Your task to perform on an android device: toggle location history Image 0: 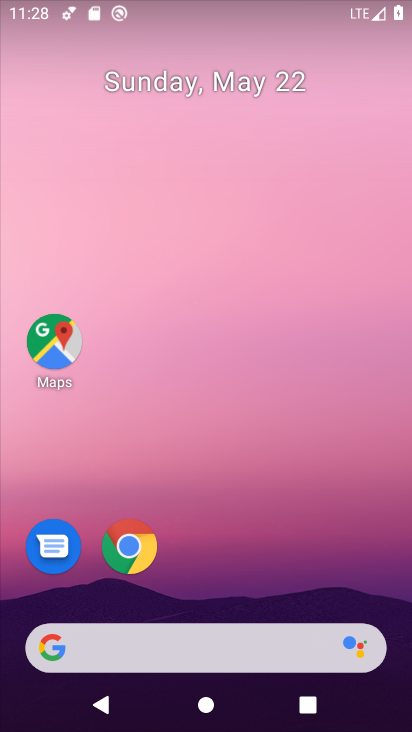
Step 0: drag from (278, 577) to (253, 146)
Your task to perform on an android device: toggle location history Image 1: 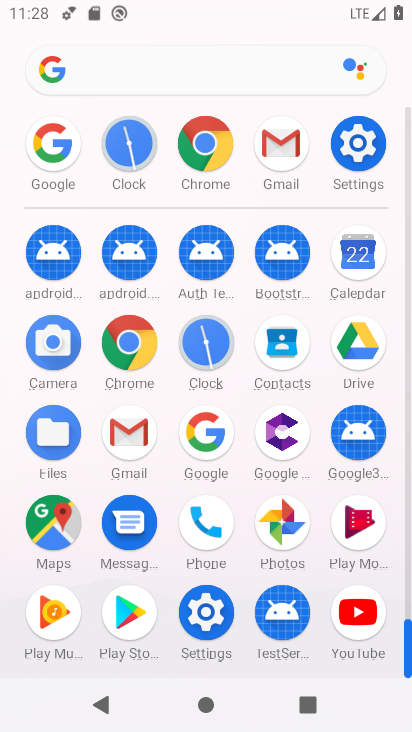
Step 1: click (358, 156)
Your task to perform on an android device: toggle location history Image 2: 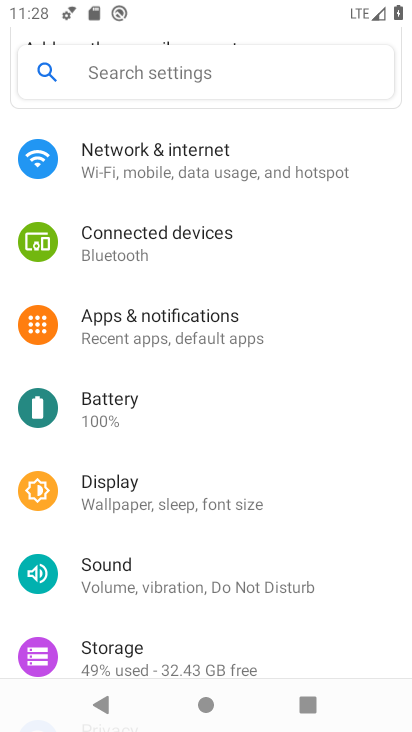
Step 2: drag from (224, 489) to (242, 256)
Your task to perform on an android device: toggle location history Image 3: 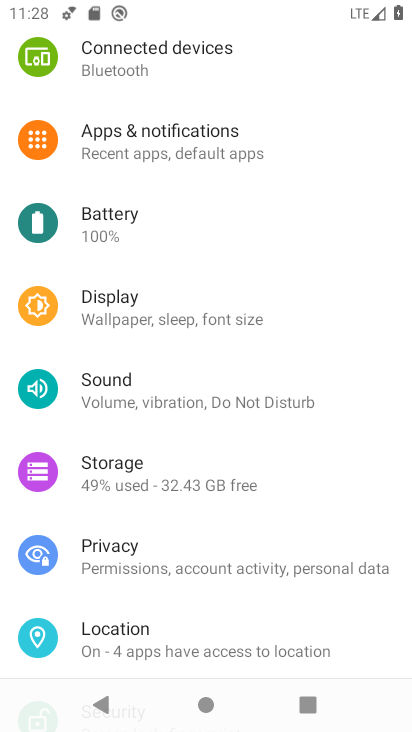
Step 3: click (186, 627)
Your task to perform on an android device: toggle location history Image 4: 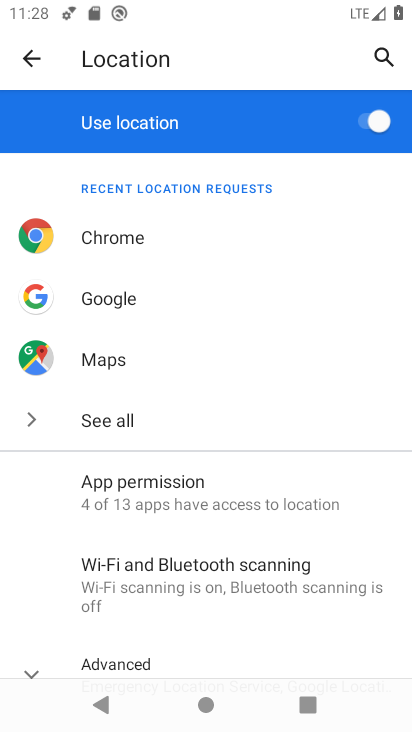
Step 4: drag from (169, 612) to (203, 388)
Your task to perform on an android device: toggle location history Image 5: 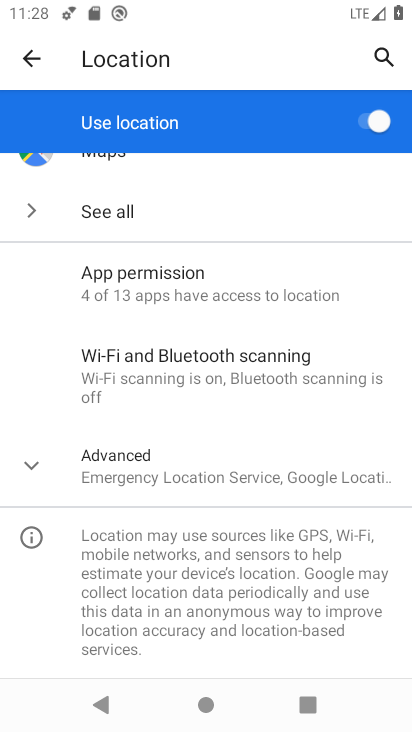
Step 5: click (172, 466)
Your task to perform on an android device: toggle location history Image 6: 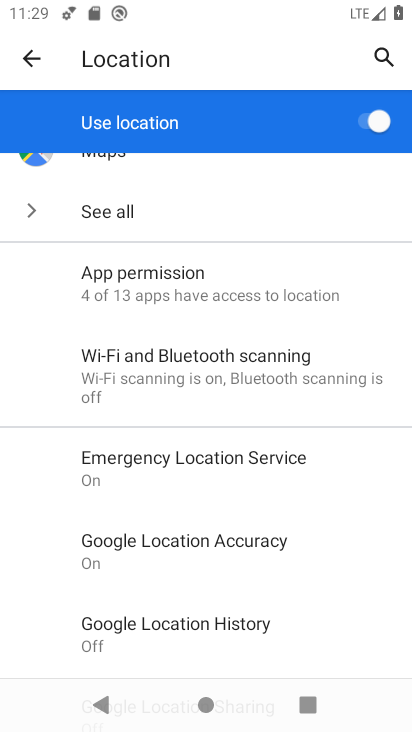
Step 6: click (214, 639)
Your task to perform on an android device: toggle location history Image 7: 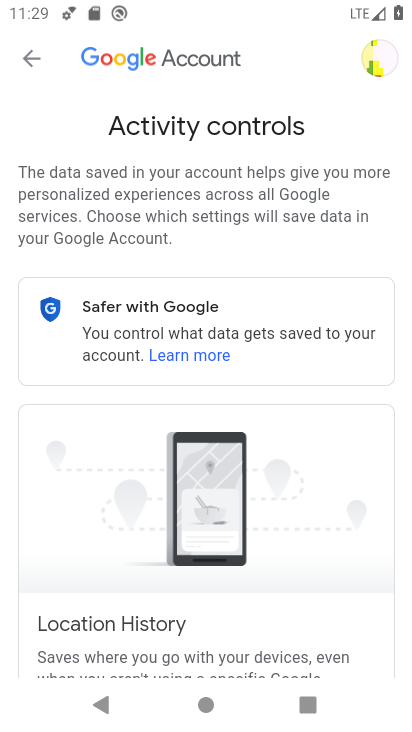
Step 7: drag from (310, 529) to (306, 237)
Your task to perform on an android device: toggle location history Image 8: 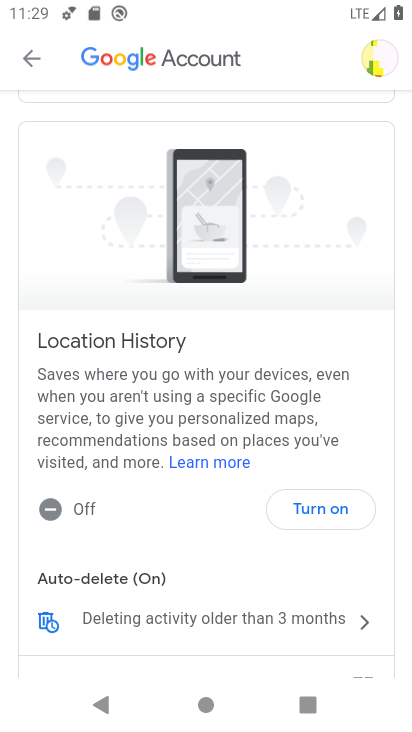
Step 8: drag from (304, 499) to (295, 384)
Your task to perform on an android device: toggle location history Image 9: 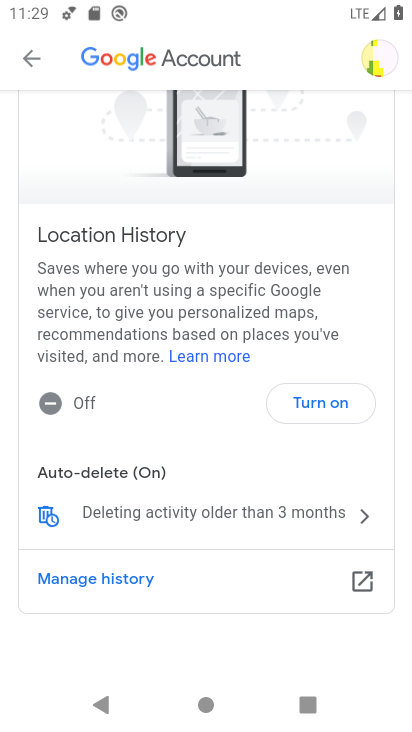
Step 9: click (327, 393)
Your task to perform on an android device: toggle location history Image 10: 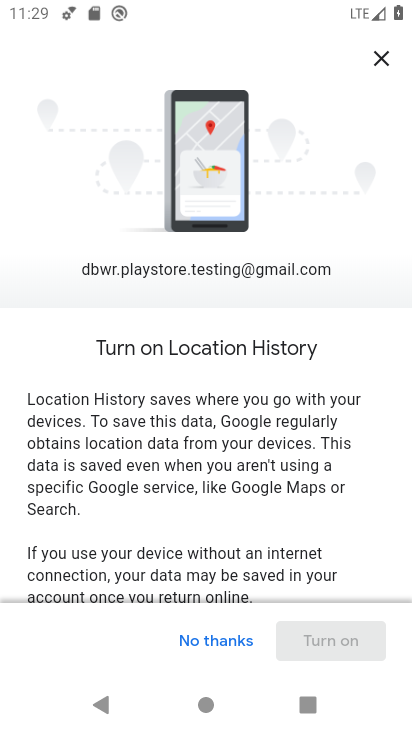
Step 10: drag from (288, 479) to (275, 317)
Your task to perform on an android device: toggle location history Image 11: 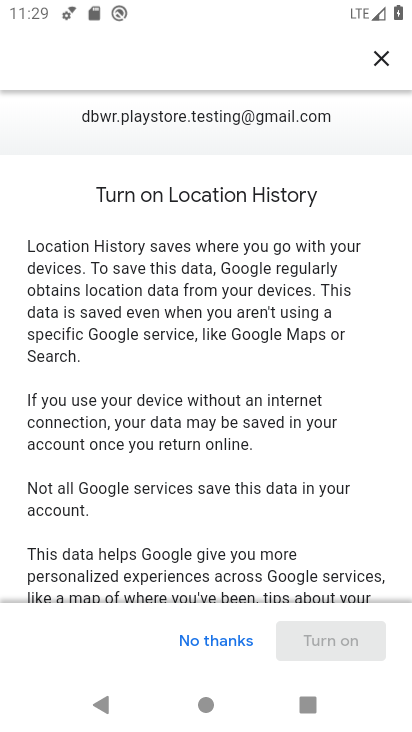
Step 11: drag from (288, 493) to (286, 361)
Your task to perform on an android device: toggle location history Image 12: 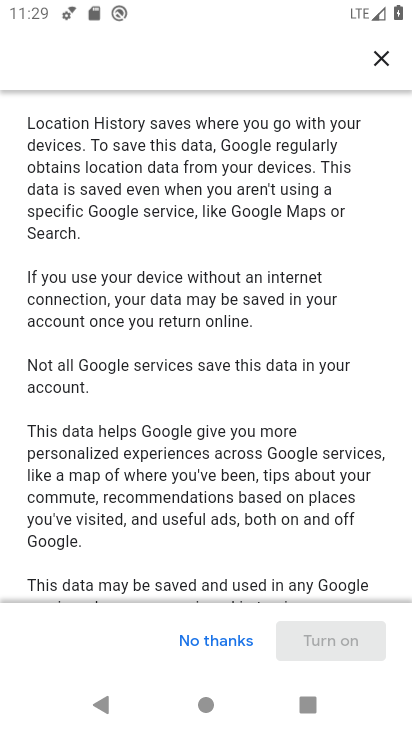
Step 12: drag from (293, 495) to (292, 242)
Your task to perform on an android device: toggle location history Image 13: 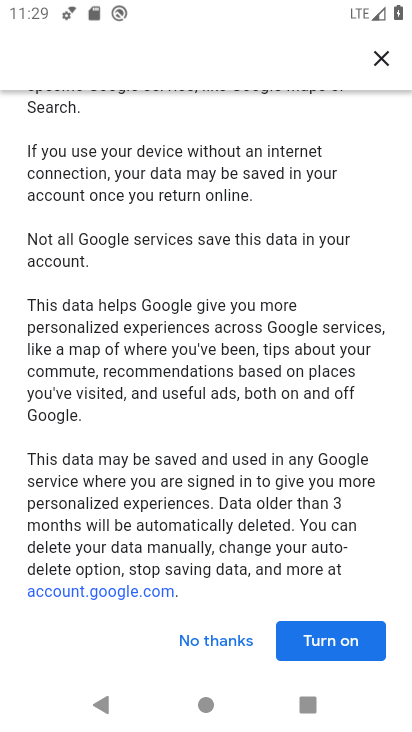
Step 13: drag from (305, 411) to (308, 223)
Your task to perform on an android device: toggle location history Image 14: 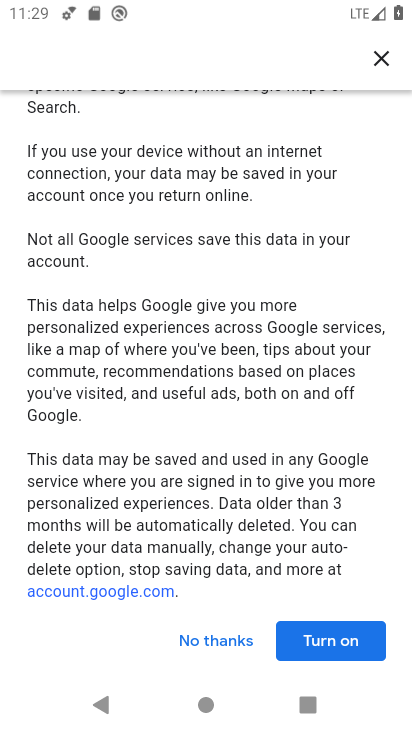
Step 14: click (335, 640)
Your task to perform on an android device: toggle location history Image 15: 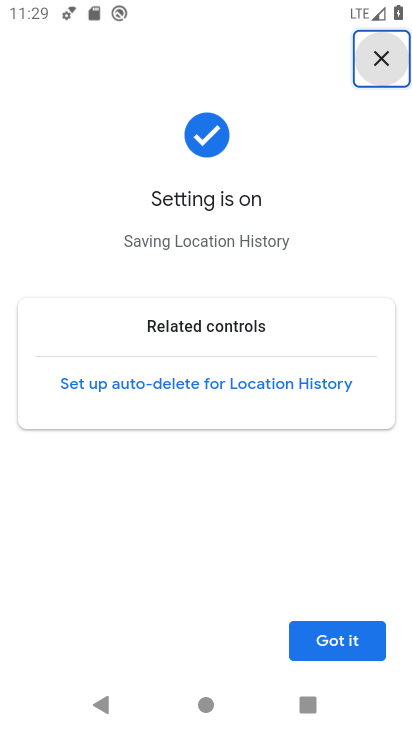
Step 15: click (343, 654)
Your task to perform on an android device: toggle location history Image 16: 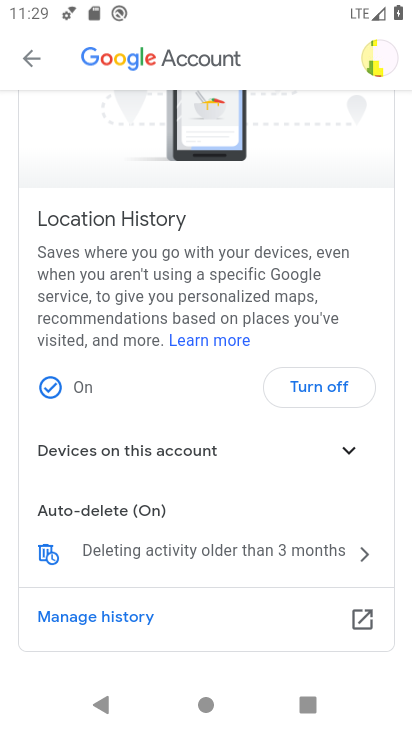
Step 16: task complete